Your task to perform on an android device: see creations saved in the google photos Image 0: 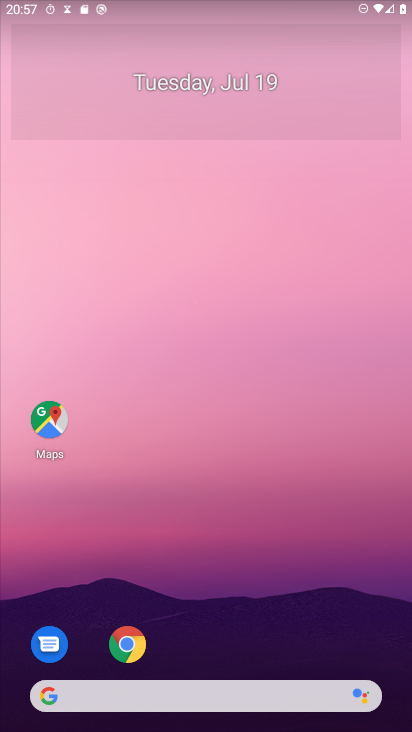
Step 0: drag from (337, 51) to (364, 1)
Your task to perform on an android device: see creations saved in the google photos Image 1: 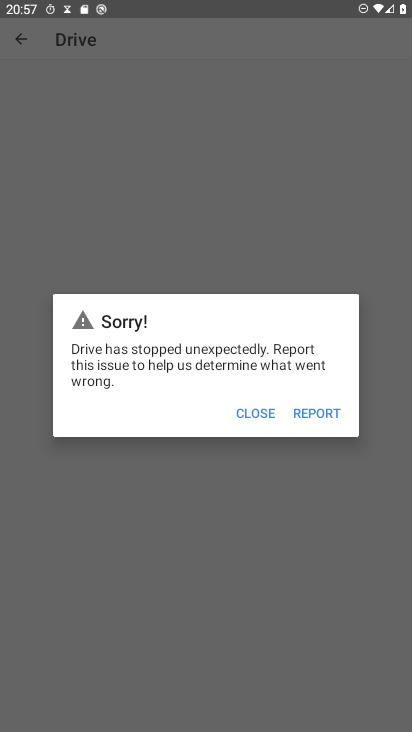
Step 1: press home button
Your task to perform on an android device: see creations saved in the google photos Image 2: 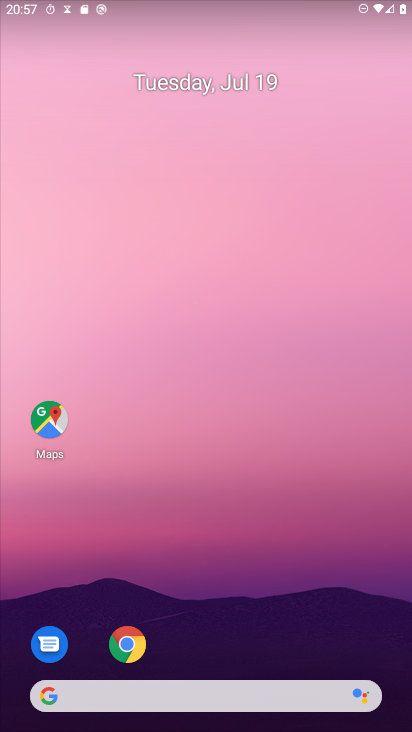
Step 2: drag from (41, 679) to (407, 42)
Your task to perform on an android device: see creations saved in the google photos Image 3: 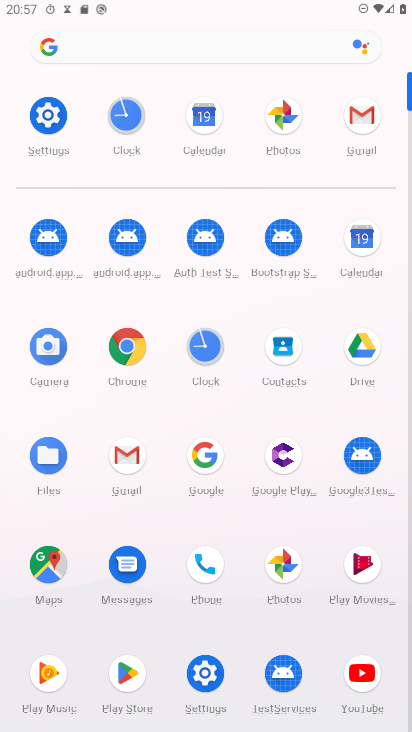
Step 3: click (292, 567)
Your task to perform on an android device: see creations saved in the google photos Image 4: 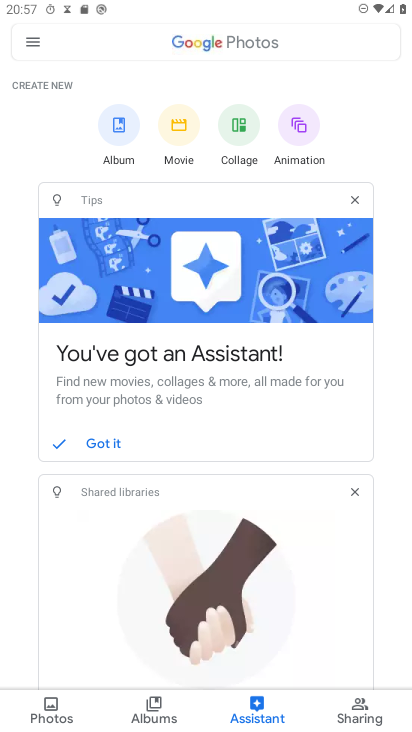
Step 4: click (48, 724)
Your task to perform on an android device: see creations saved in the google photos Image 5: 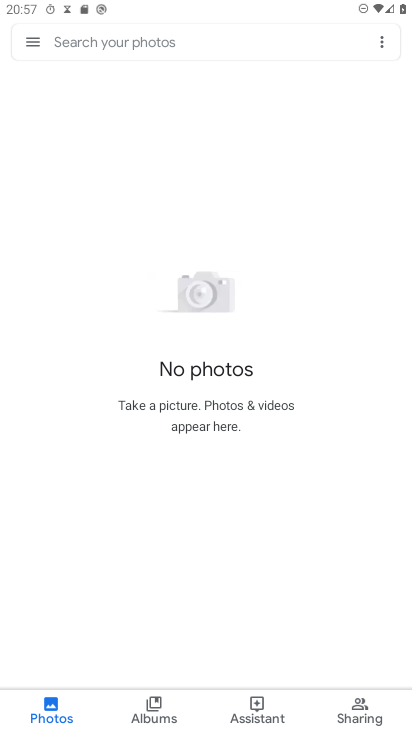
Step 5: click (33, 46)
Your task to perform on an android device: see creations saved in the google photos Image 6: 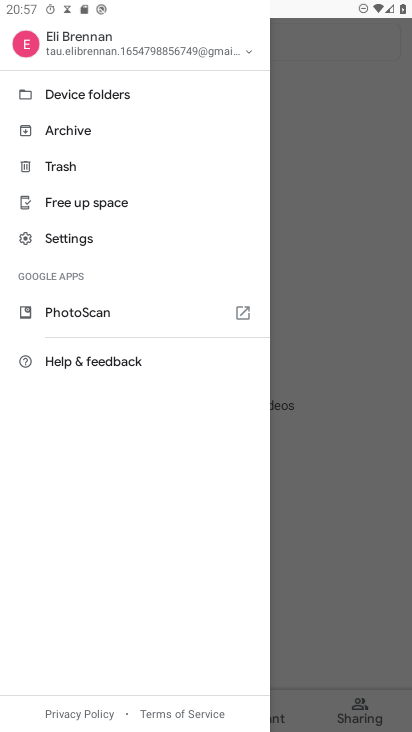
Step 6: click (328, 190)
Your task to perform on an android device: see creations saved in the google photos Image 7: 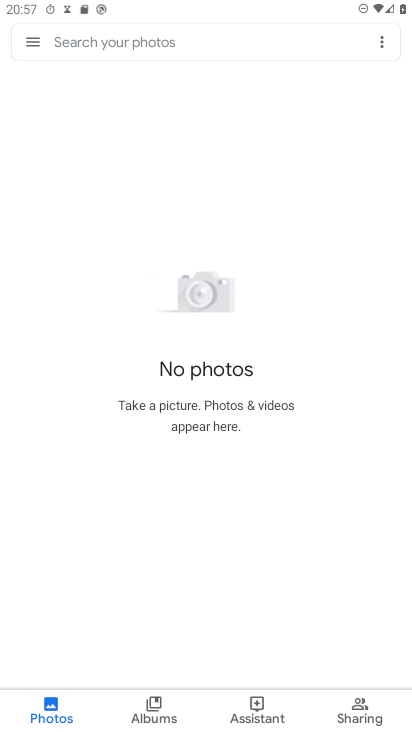
Step 7: click (388, 47)
Your task to perform on an android device: see creations saved in the google photos Image 8: 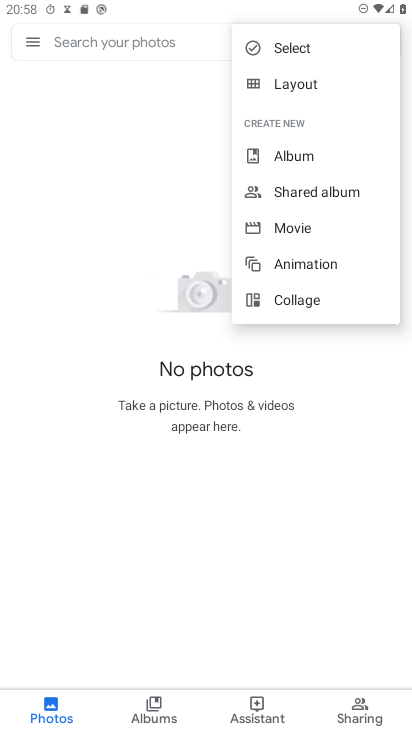
Step 8: click (347, 406)
Your task to perform on an android device: see creations saved in the google photos Image 9: 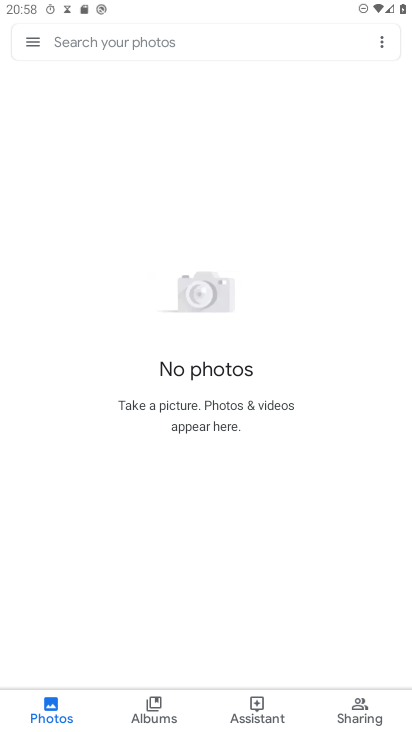
Step 9: task complete